Your task to perform on an android device: Open Google Chrome and open the bookmarks view Image 0: 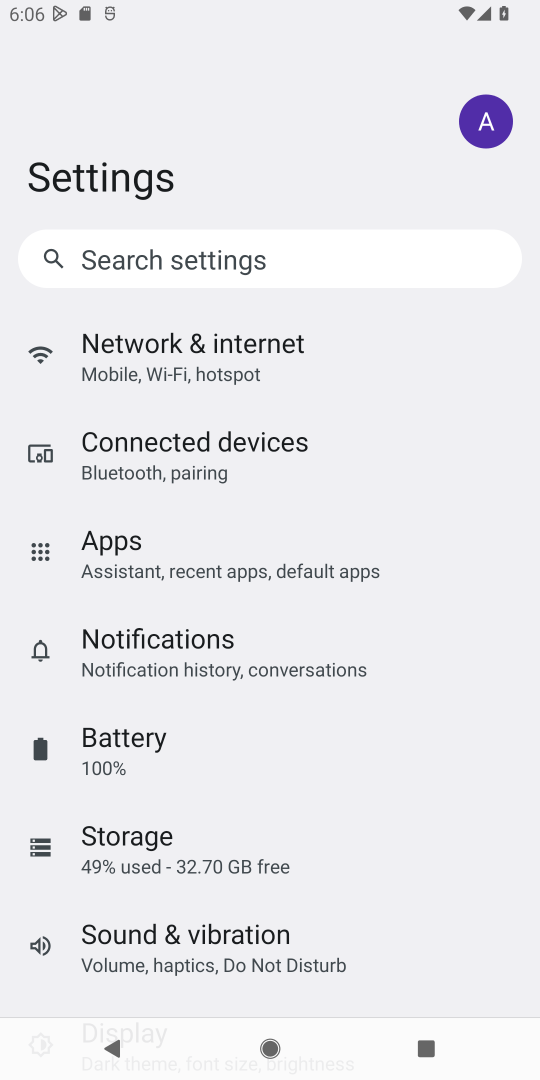
Step 0: press home button
Your task to perform on an android device: Open Google Chrome and open the bookmarks view Image 1: 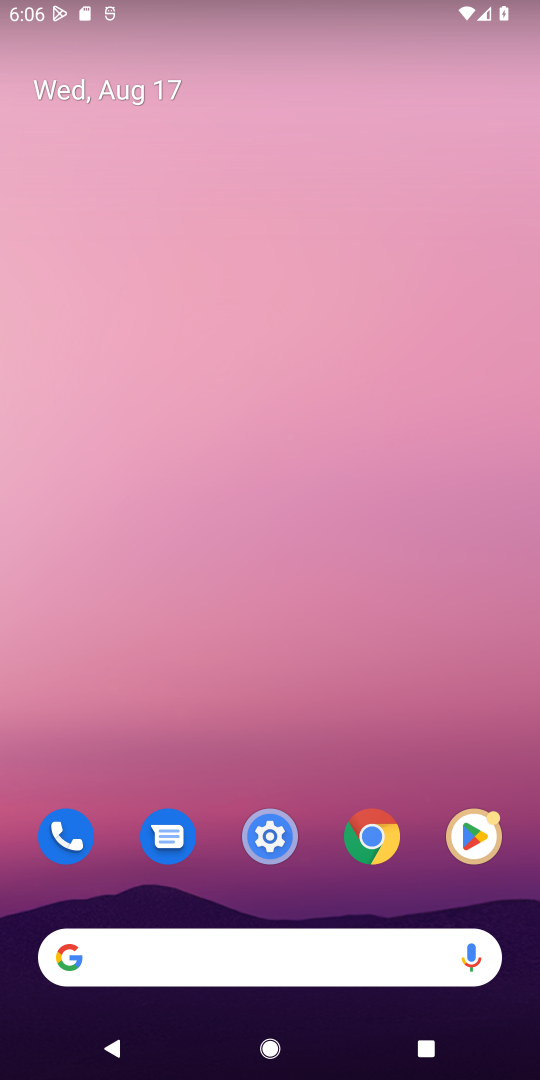
Step 1: click (377, 832)
Your task to perform on an android device: Open Google Chrome and open the bookmarks view Image 2: 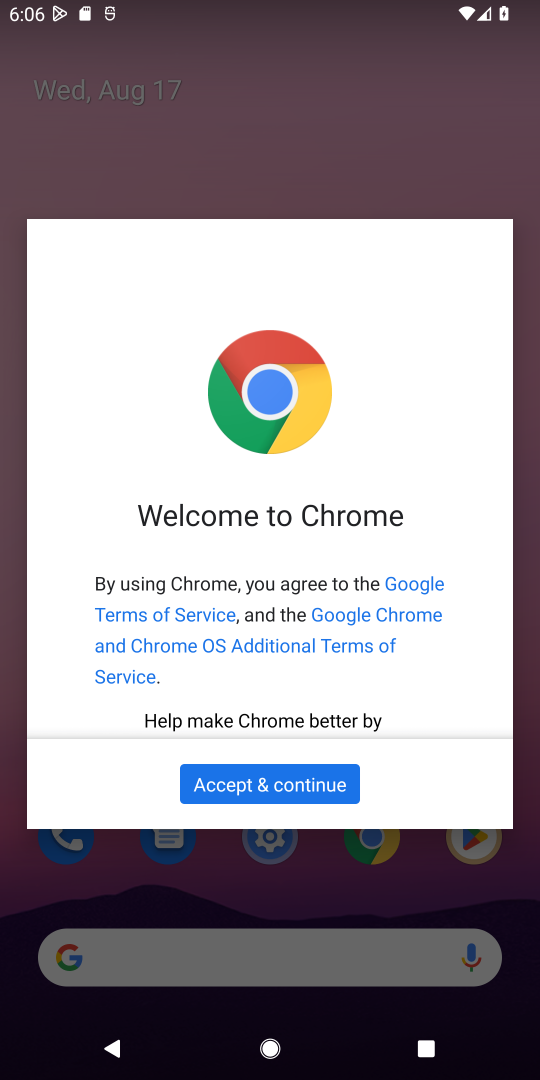
Step 2: click (259, 776)
Your task to perform on an android device: Open Google Chrome and open the bookmarks view Image 3: 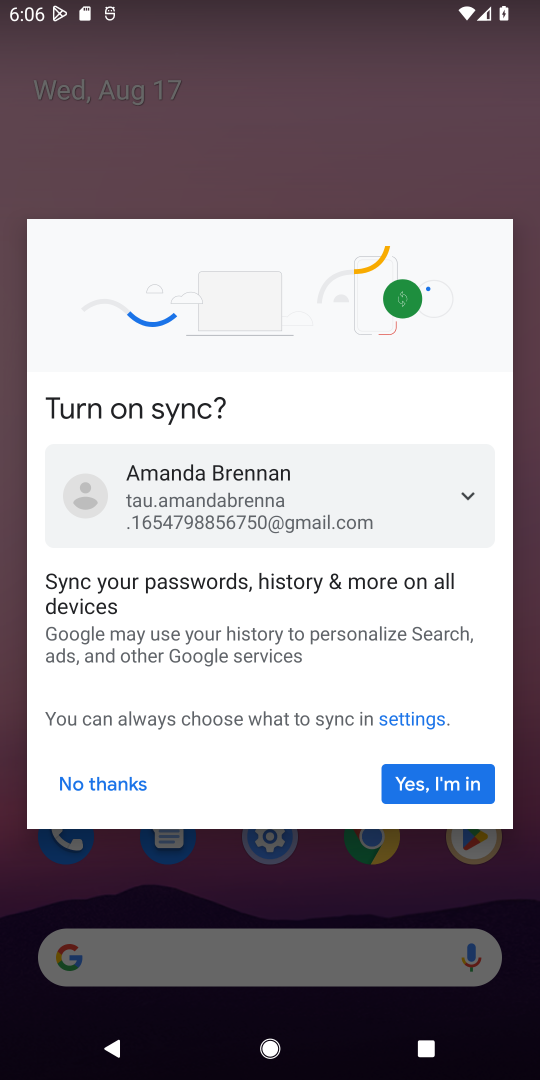
Step 3: click (421, 775)
Your task to perform on an android device: Open Google Chrome and open the bookmarks view Image 4: 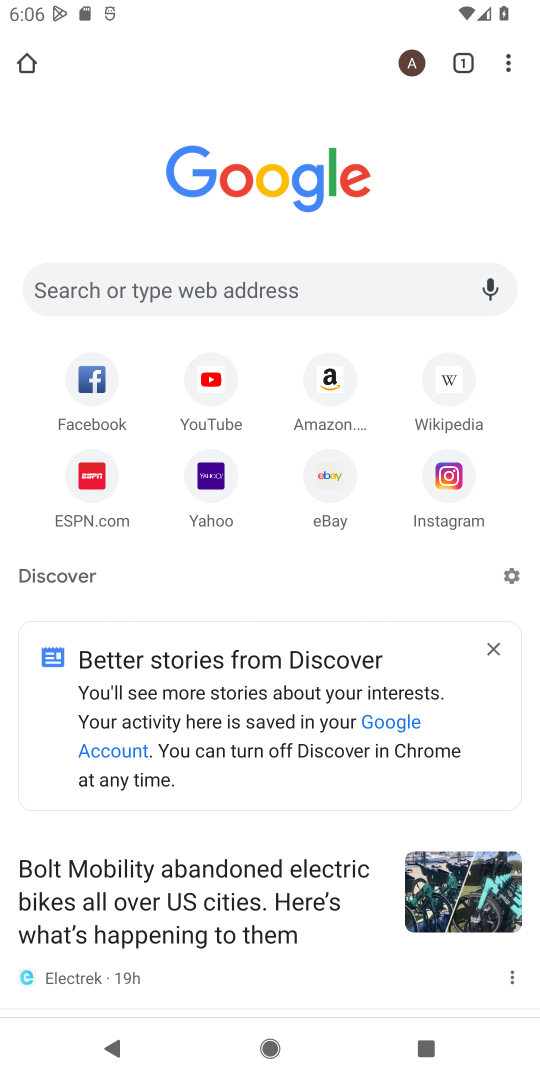
Step 4: task complete